Your task to perform on an android device: Open ESPN.com Image 0: 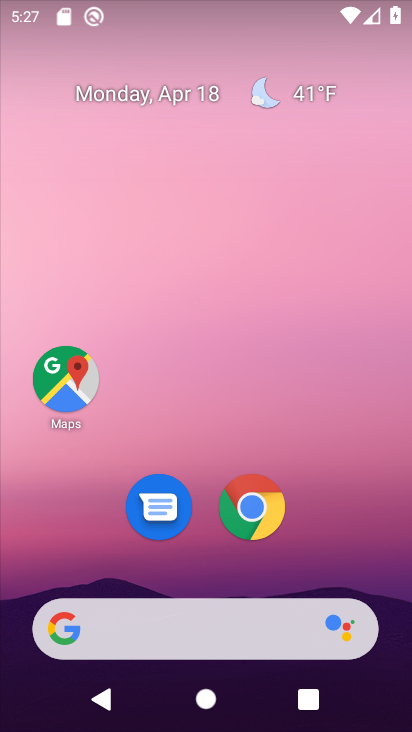
Step 0: drag from (288, 404) to (258, 133)
Your task to perform on an android device: Open ESPN.com Image 1: 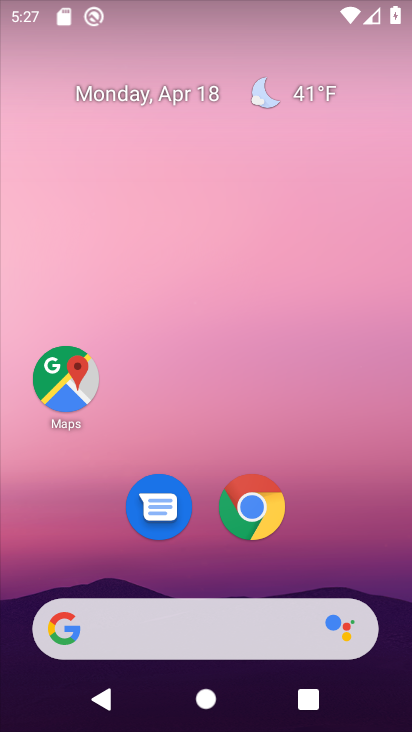
Step 1: drag from (342, 311) to (337, 9)
Your task to perform on an android device: Open ESPN.com Image 2: 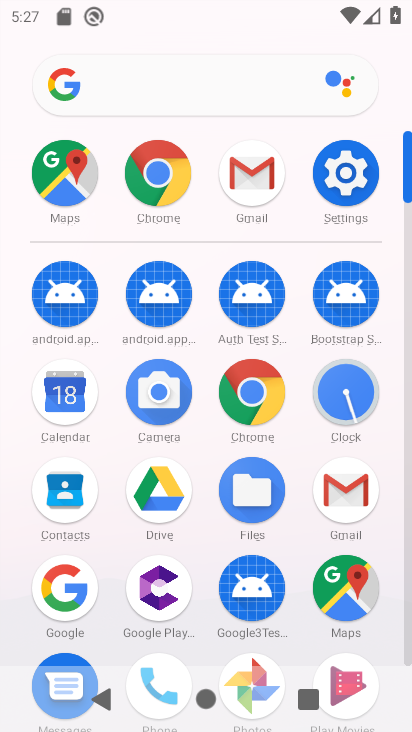
Step 2: click (258, 415)
Your task to perform on an android device: Open ESPN.com Image 3: 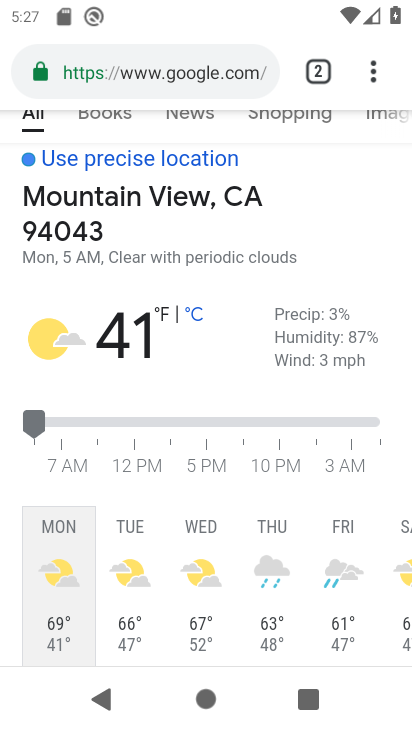
Step 3: click (211, 79)
Your task to perform on an android device: Open ESPN.com Image 4: 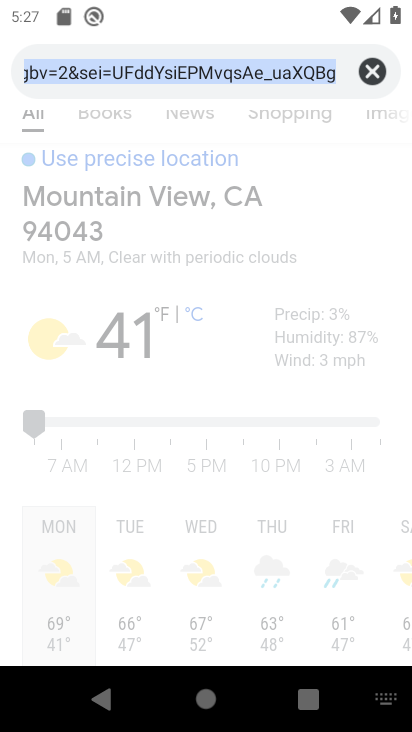
Step 4: type "espn.com"
Your task to perform on an android device: Open ESPN.com Image 5: 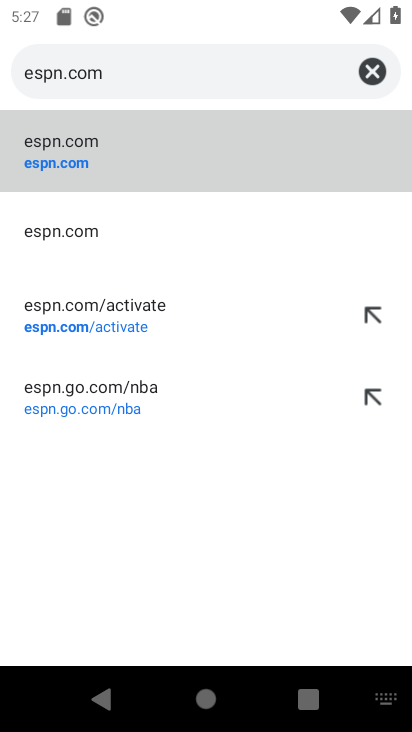
Step 5: click (351, 174)
Your task to perform on an android device: Open ESPN.com Image 6: 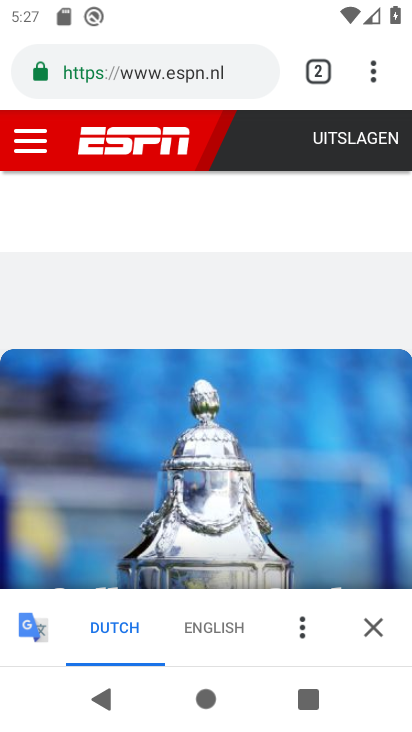
Step 6: task complete